Your task to perform on an android device: search for starred emails in the gmail app Image 0: 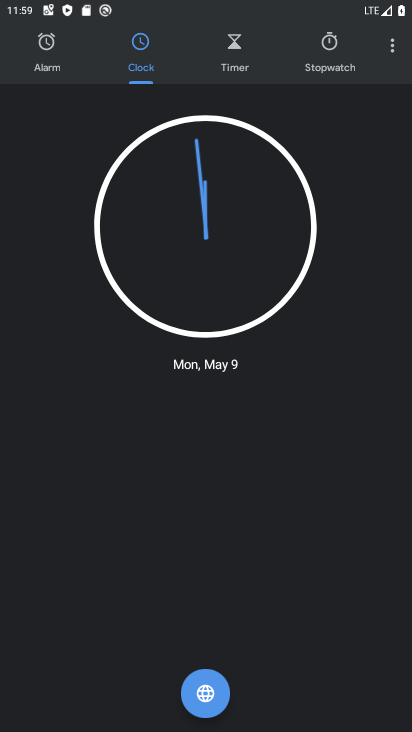
Step 0: press home button
Your task to perform on an android device: search for starred emails in the gmail app Image 1: 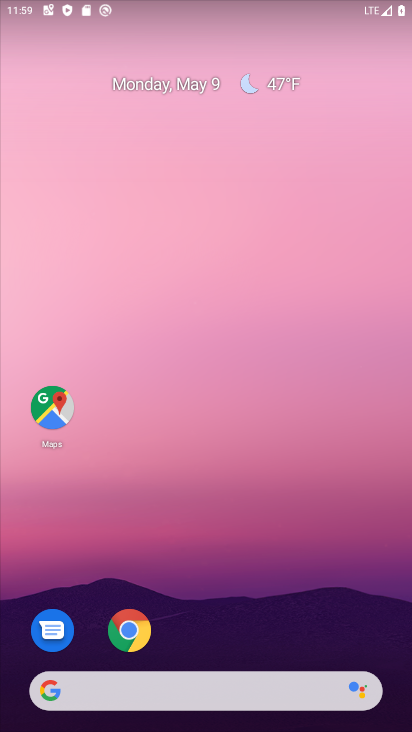
Step 1: drag from (120, 690) to (234, 137)
Your task to perform on an android device: search for starred emails in the gmail app Image 2: 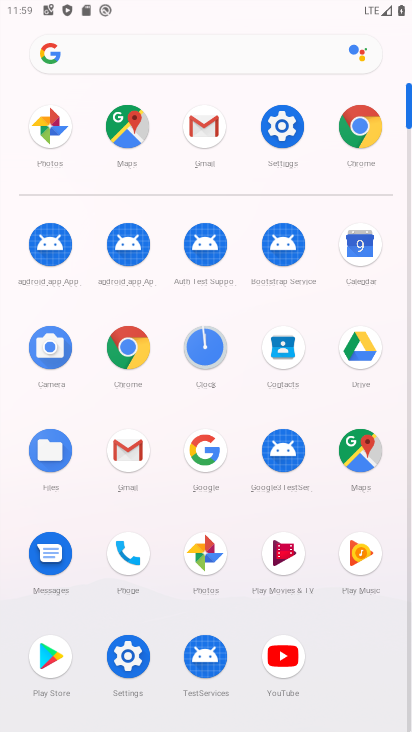
Step 2: click (202, 131)
Your task to perform on an android device: search for starred emails in the gmail app Image 3: 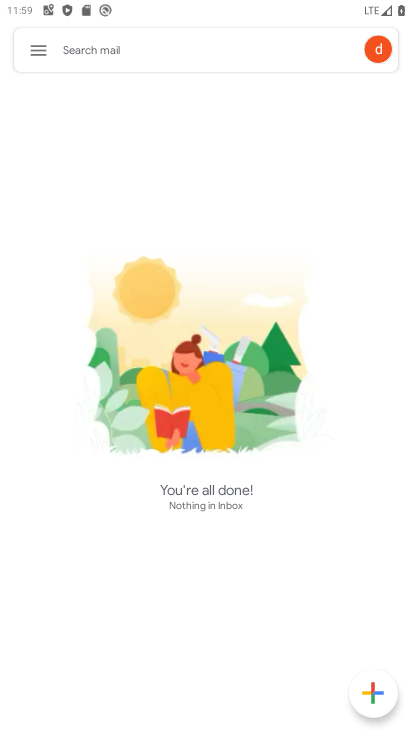
Step 3: click (37, 53)
Your task to perform on an android device: search for starred emails in the gmail app Image 4: 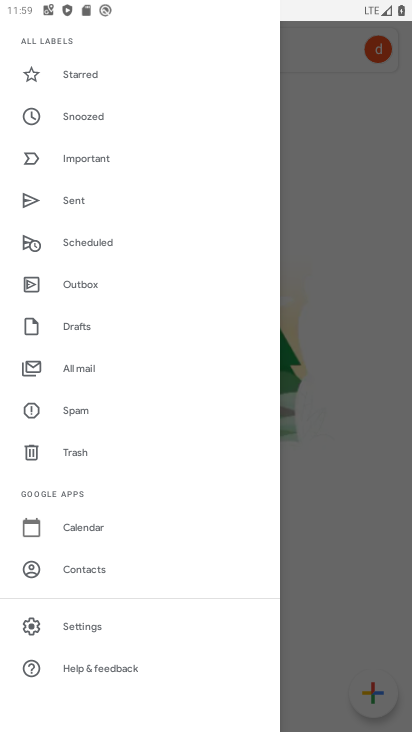
Step 4: click (83, 74)
Your task to perform on an android device: search for starred emails in the gmail app Image 5: 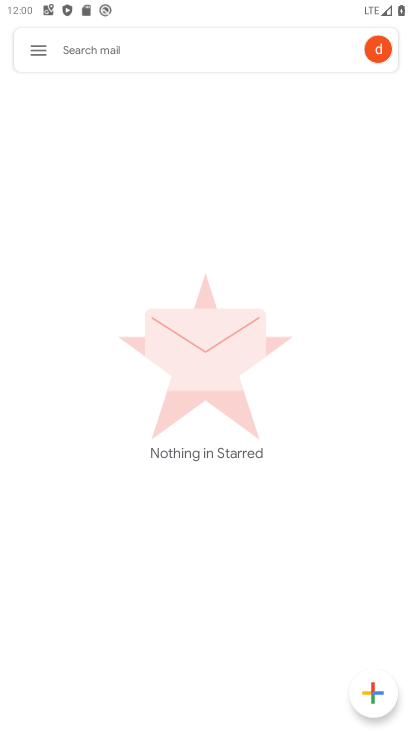
Step 5: task complete